Your task to perform on an android device: open a new tab in the chrome app Image 0: 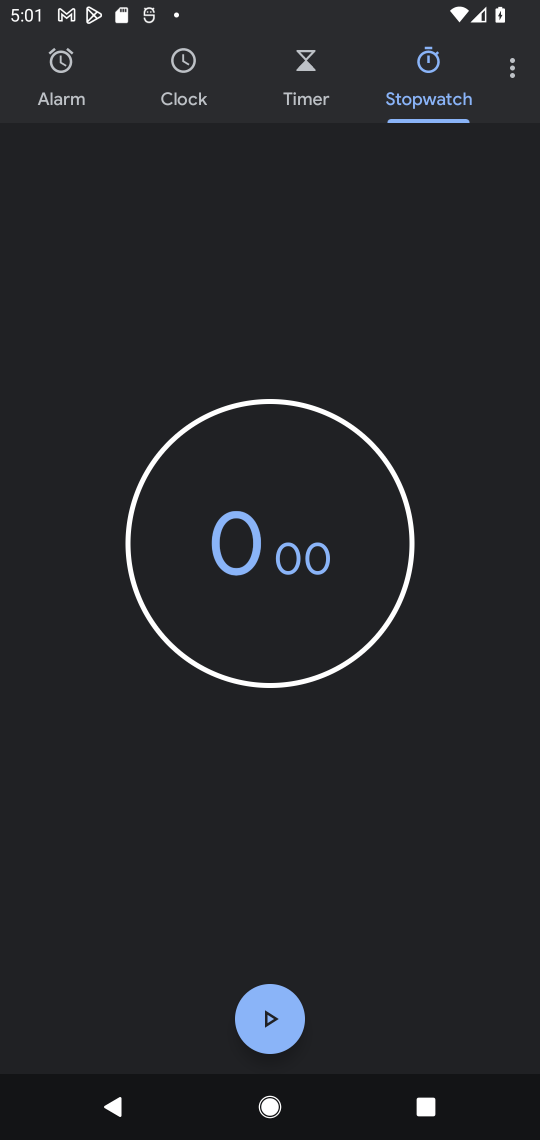
Step 0: press home button
Your task to perform on an android device: open a new tab in the chrome app Image 1: 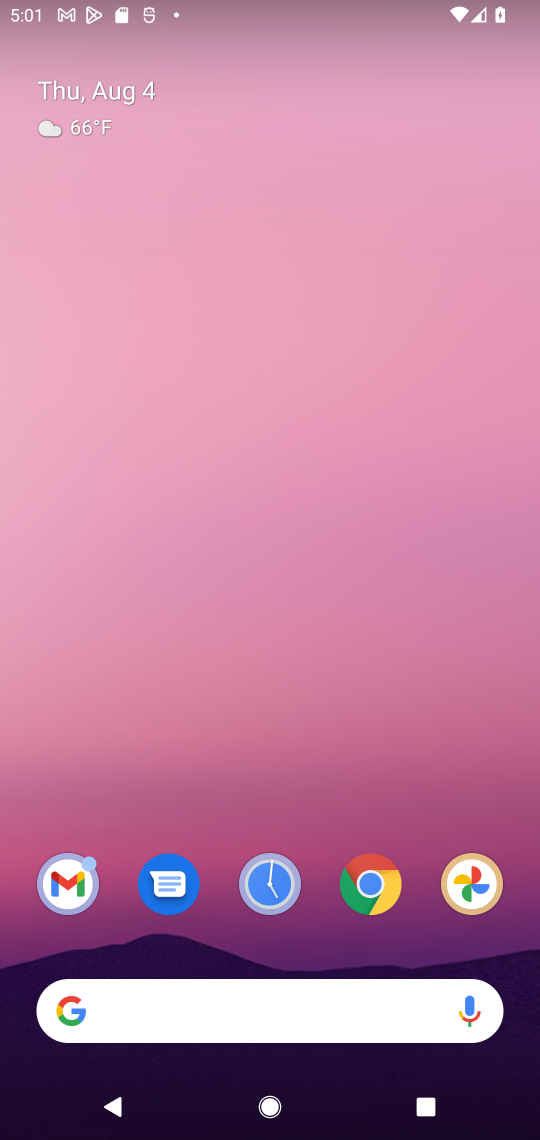
Step 1: click (345, 885)
Your task to perform on an android device: open a new tab in the chrome app Image 2: 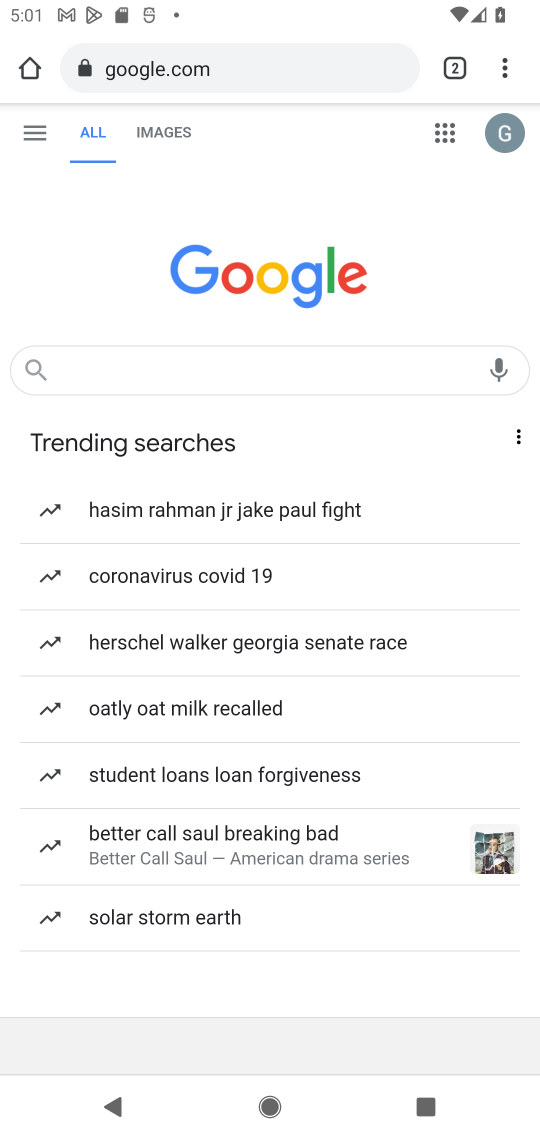
Step 2: click (498, 70)
Your task to perform on an android device: open a new tab in the chrome app Image 3: 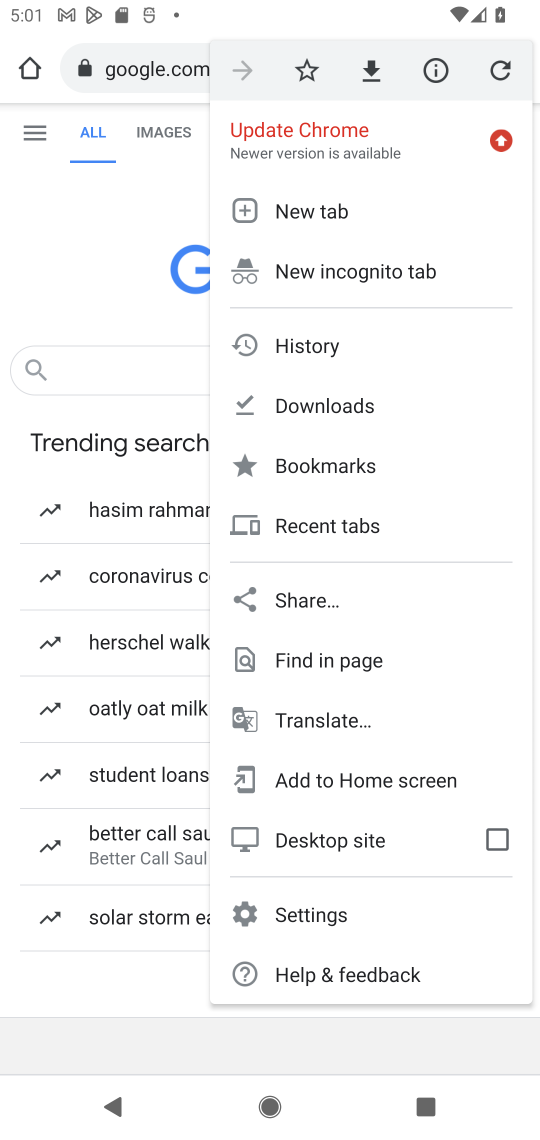
Step 3: click (278, 201)
Your task to perform on an android device: open a new tab in the chrome app Image 4: 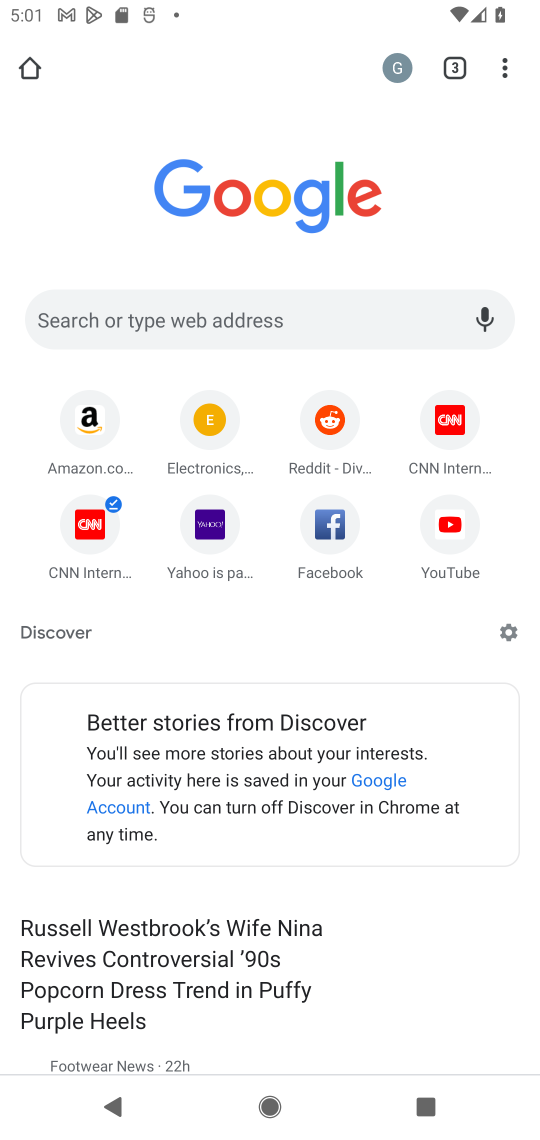
Step 4: task complete